Your task to perform on an android device: check out phone information Image 0: 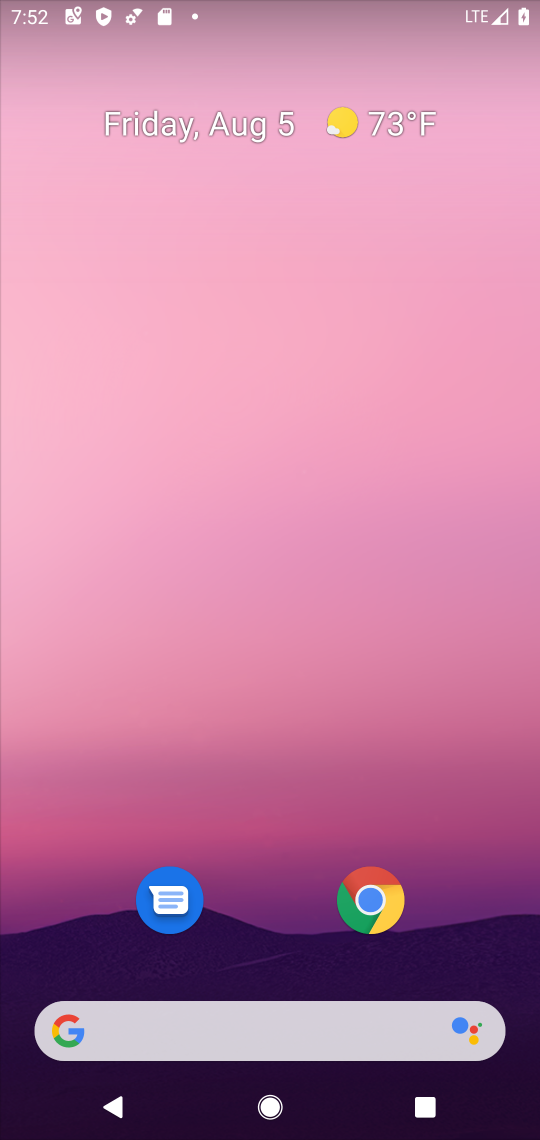
Step 0: drag from (221, 970) to (223, 309)
Your task to perform on an android device: check out phone information Image 1: 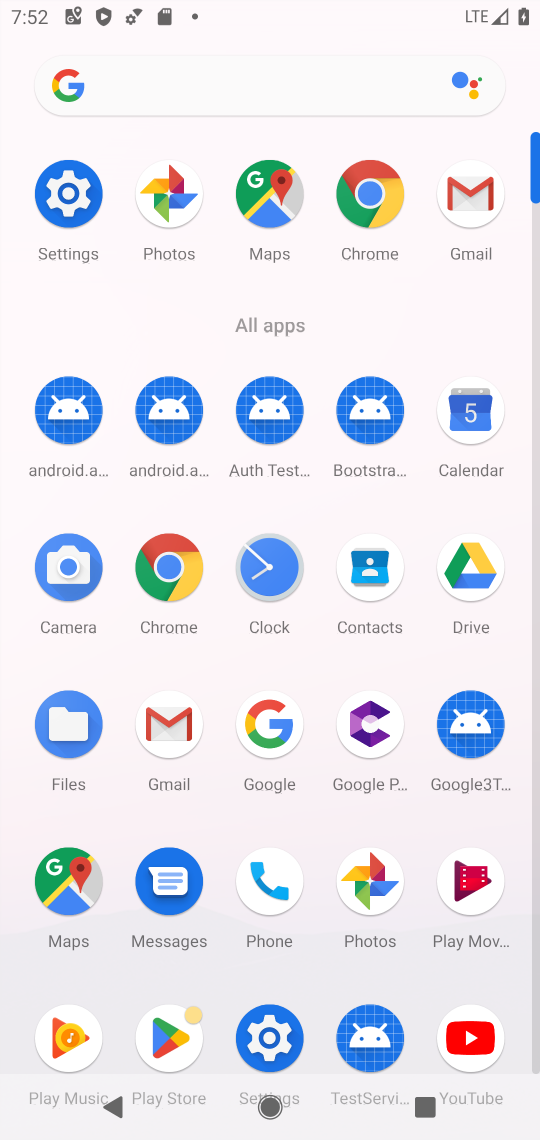
Step 1: click (249, 874)
Your task to perform on an android device: check out phone information Image 2: 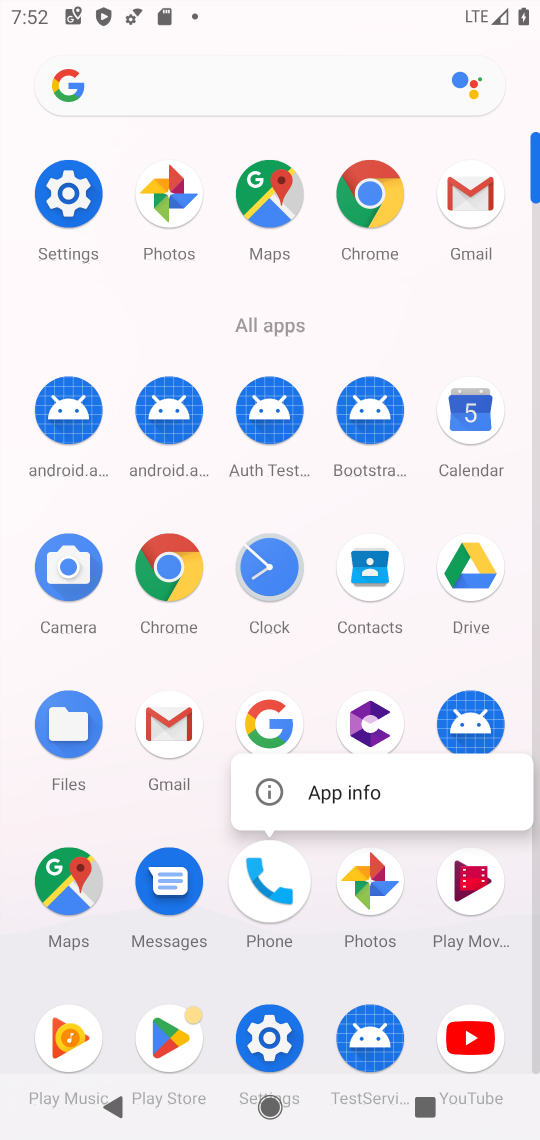
Step 2: click (295, 797)
Your task to perform on an android device: check out phone information Image 3: 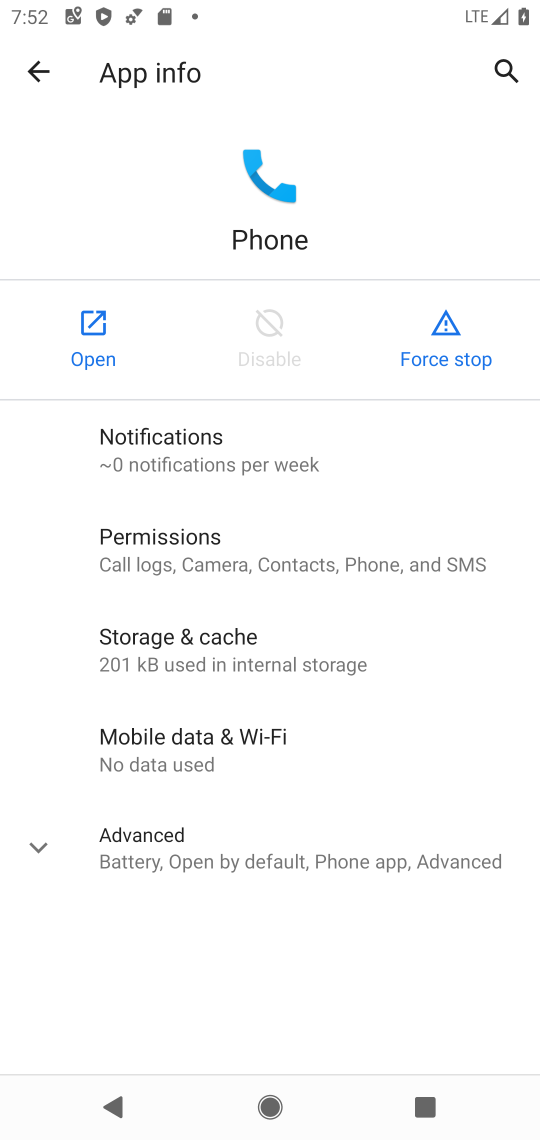
Step 3: click (164, 836)
Your task to perform on an android device: check out phone information Image 4: 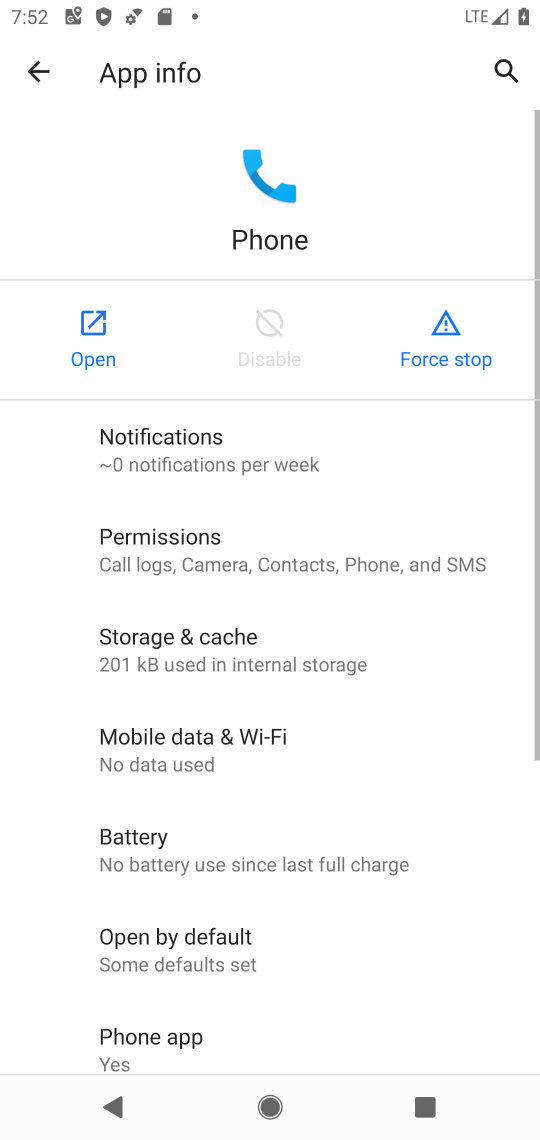
Step 4: task complete